Your task to perform on an android device: Go to Wikipedia Image 0: 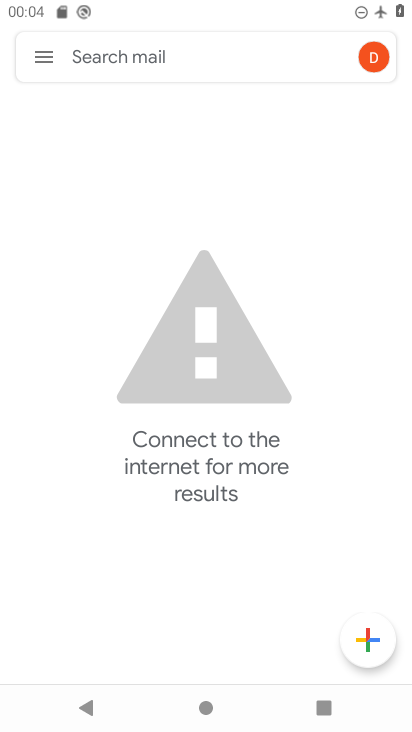
Step 0: task impossible